Your task to perform on an android device: Search for sushi restaurants on Maps Image 0: 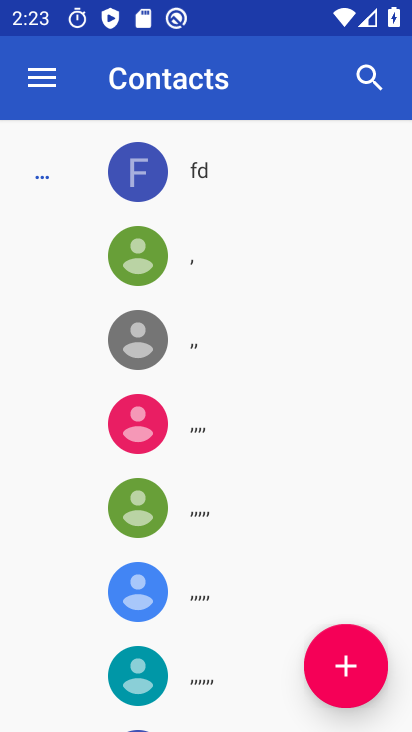
Step 0: press home button
Your task to perform on an android device: Search for sushi restaurants on Maps Image 1: 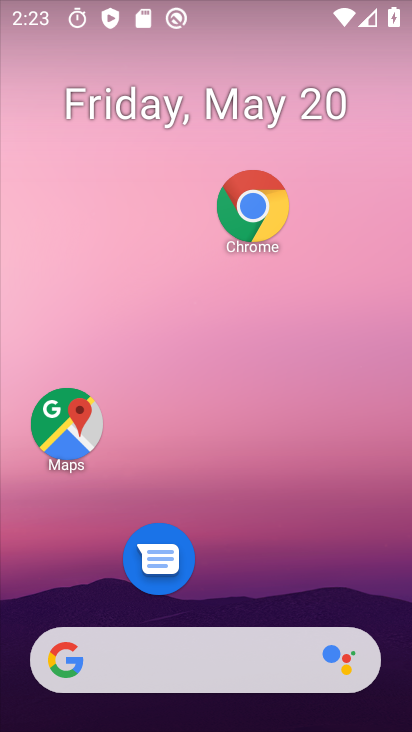
Step 1: drag from (215, 610) to (233, 28)
Your task to perform on an android device: Search for sushi restaurants on Maps Image 2: 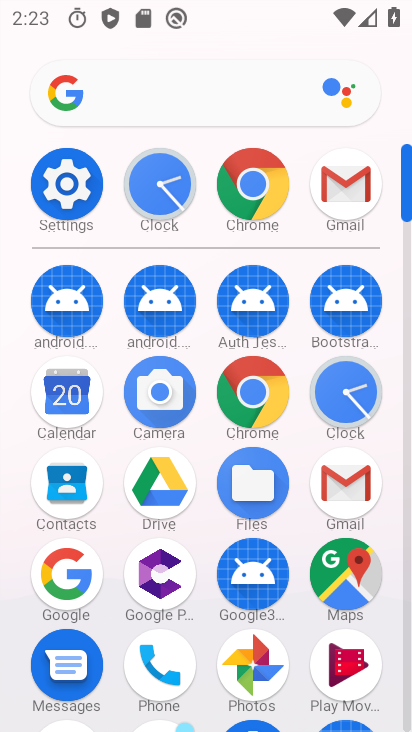
Step 2: click (369, 574)
Your task to perform on an android device: Search for sushi restaurants on Maps Image 3: 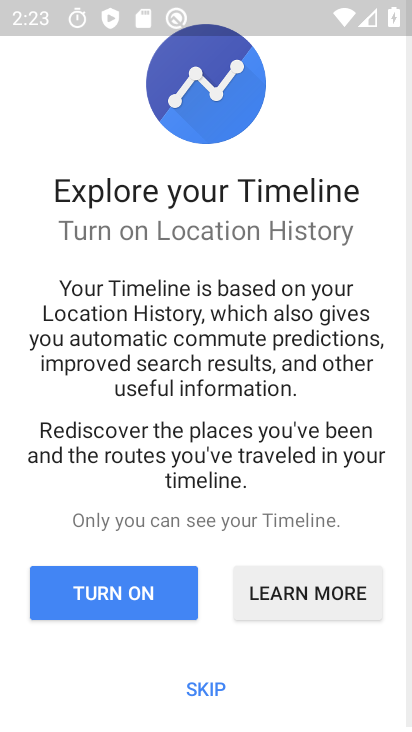
Step 3: click (169, 685)
Your task to perform on an android device: Search for sushi restaurants on Maps Image 4: 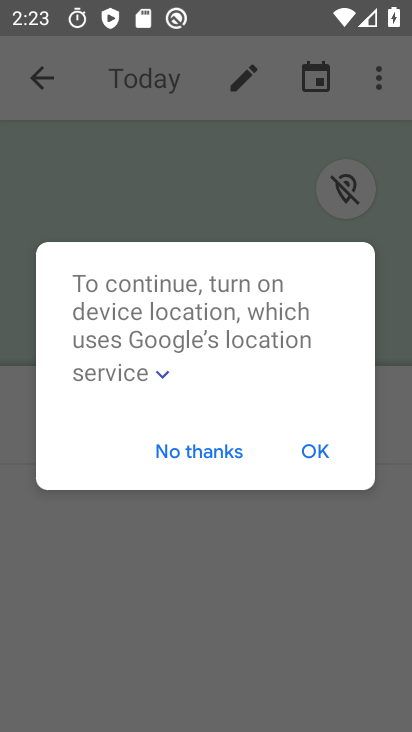
Step 4: click (321, 446)
Your task to perform on an android device: Search for sushi restaurants on Maps Image 5: 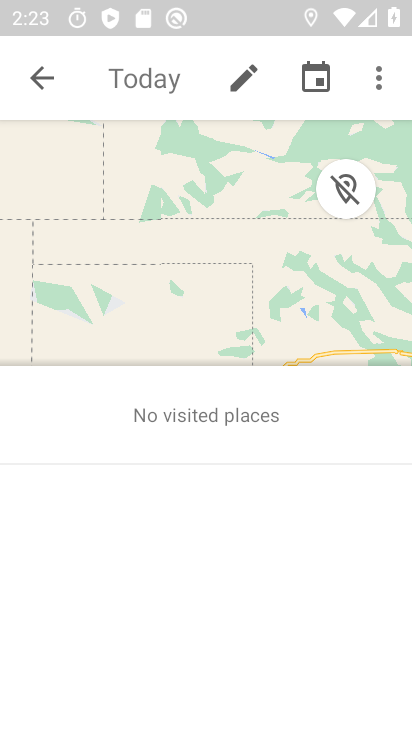
Step 5: click (52, 74)
Your task to perform on an android device: Search for sushi restaurants on Maps Image 6: 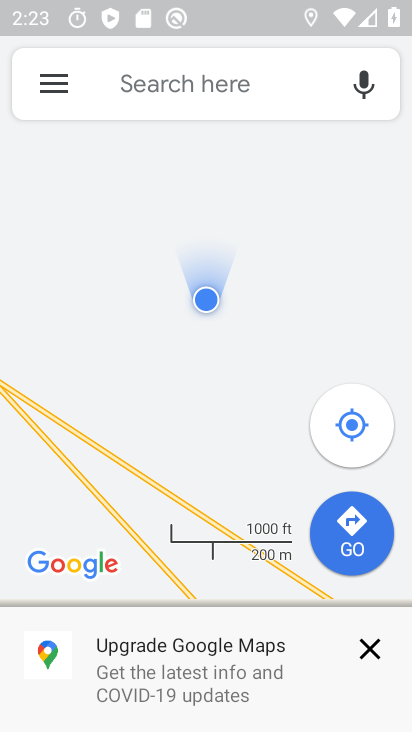
Step 6: click (214, 64)
Your task to perform on an android device: Search for sushi restaurants on Maps Image 7: 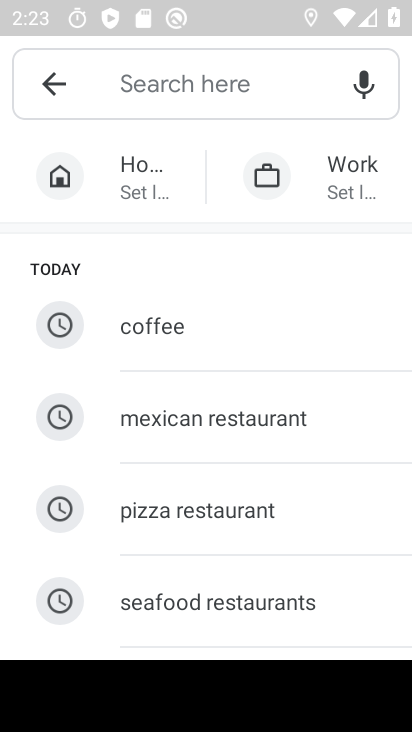
Step 7: drag from (239, 518) to (204, 252)
Your task to perform on an android device: Search for sushi restaurants on Maps Image 8: 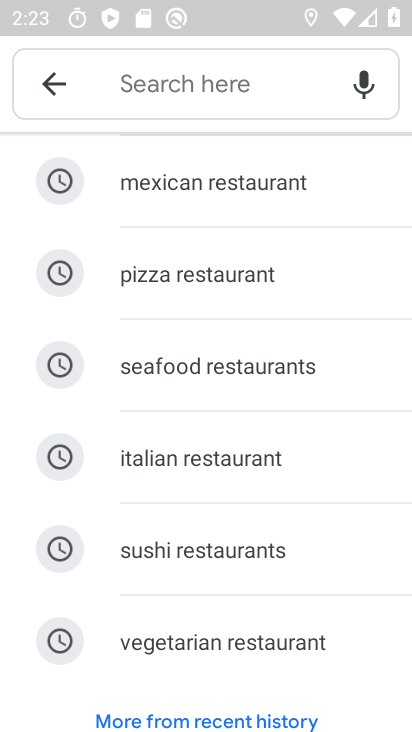
Step 8: click (199, 559)
Your task to perform on an android device: Search for sushi restaurants on Maps Image 9: 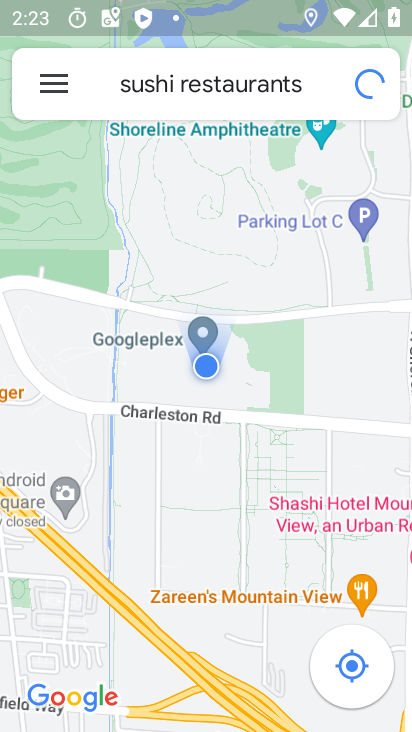
Step 9: task complete